Your task to perform on an android device: Open settings Image 0: 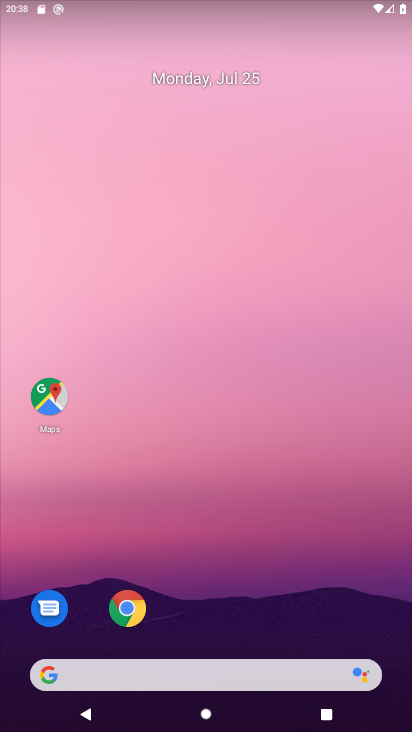
Step 0: drag from (305, 594) to (317, 51)
Your task to perform on an android device: Open settings Image 1: 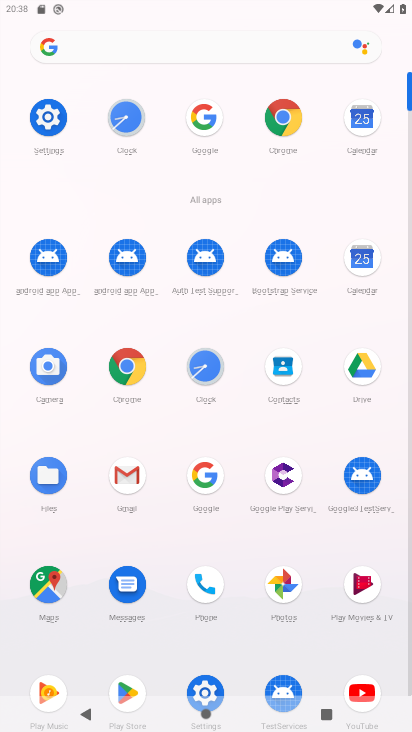
Step 1: click (58, 112)
Your task to perform on an android device: Open settings Image 2: 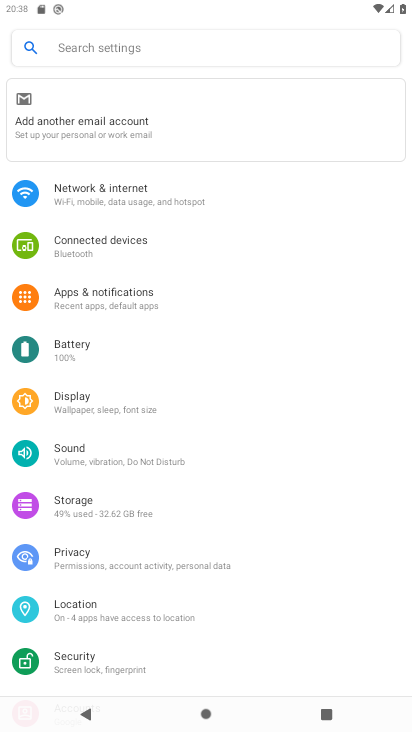
Step 2: task complete